Your task to perform on an android device: Go to notification settings Image 0: 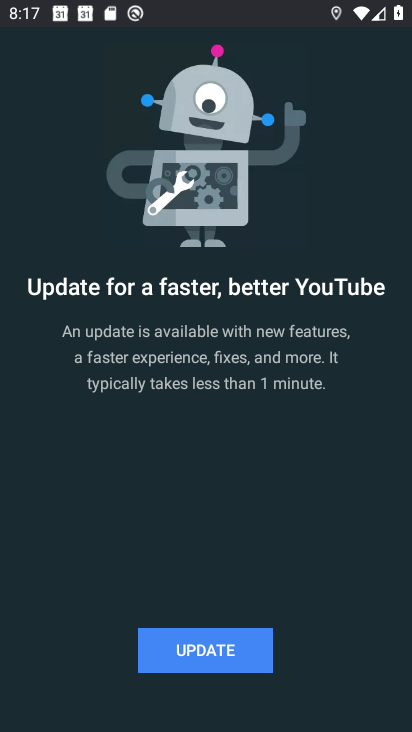
Step 0: press home button
Your task to perform on an android device: Go to notification settings Image 1: 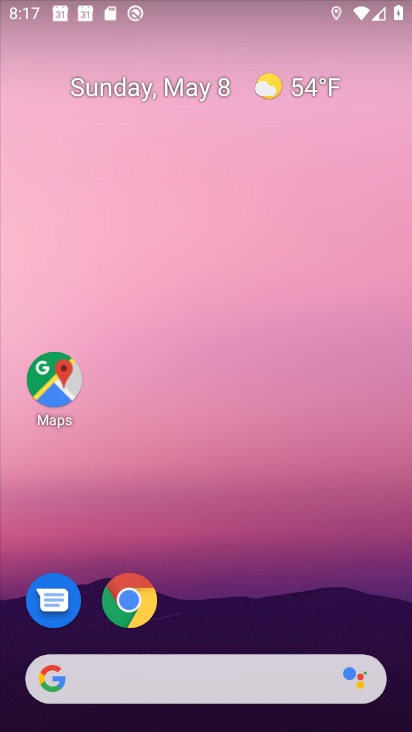
Step 1: drag from (257, 485) to (142, 7)
Your task to perform on an android device: Go to notification settings Image 2: 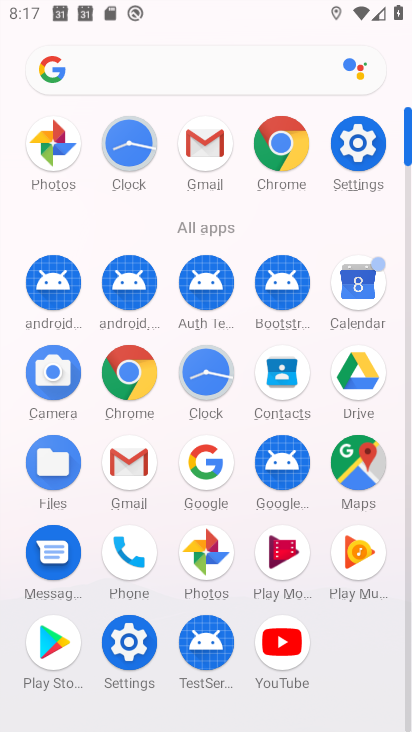
Step 2: click (367, 150)
Your task to perform on an android device: Go to notification settings Image 3: 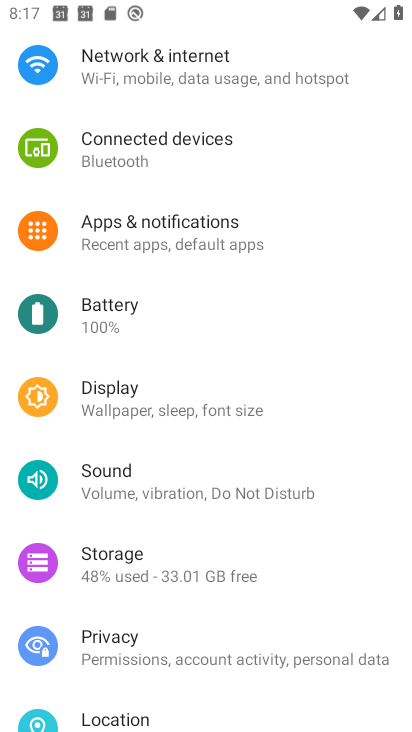
Step 3: click (227, 247)
Your task to perform on an android device: Go to notification settings Image 4: 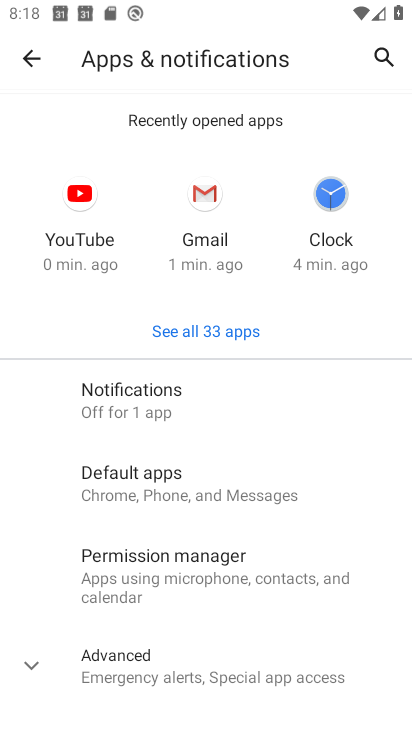
Step 4: click (197, 409)
Your task to perform on an android device: Go to notification settings Image 5: 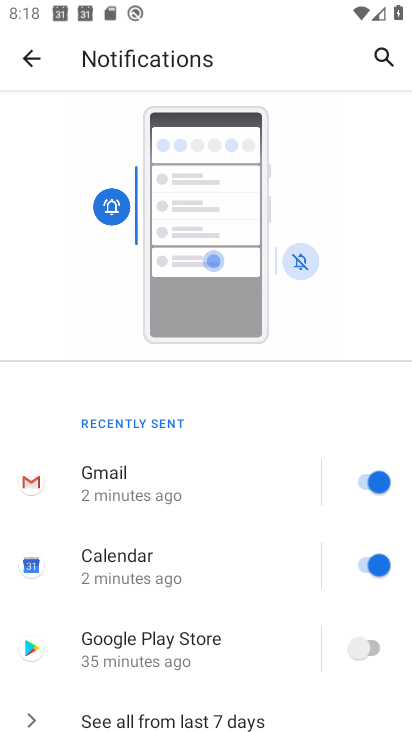
Step 5: task complete